Your task to perform on an android device: delete the emails in spam in the gmail app Image 0: 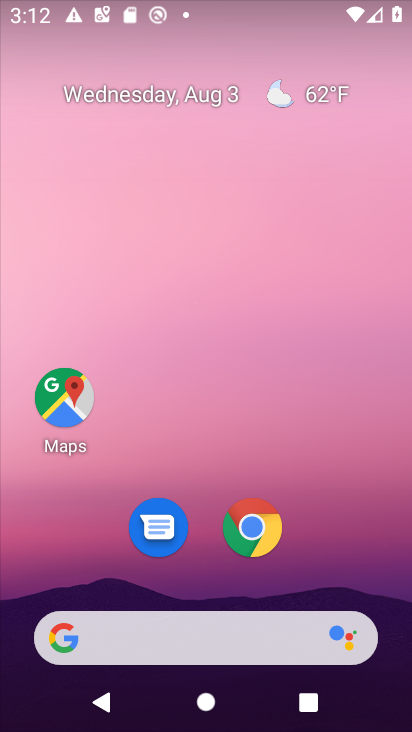
Step 0: drag from (355, 532) to (208, 126)
Your task to perform on an android device: delete the emails in spam in the gmail app Image 1: 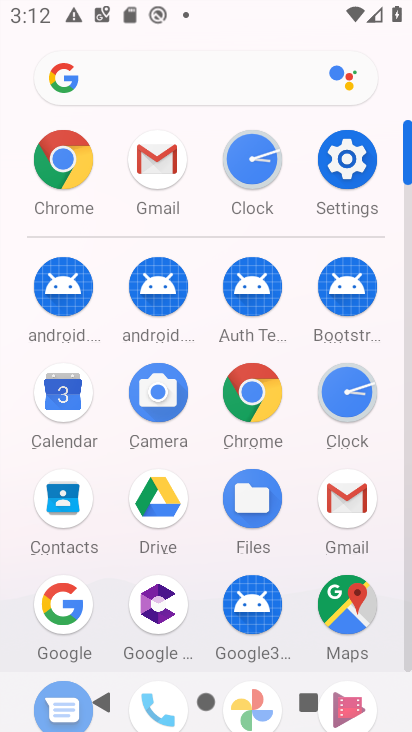
Step 1: click (352, 493)
Your task to perform on an android device: delete the emails in spam in the gmail app Image 2: 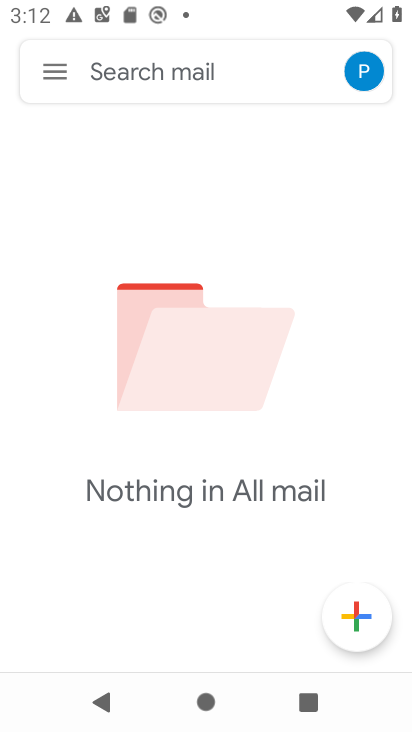
Step 2: click (61, 72)
Your task to perform on an android device: delete the emails in spam in the gmail app Image 3: 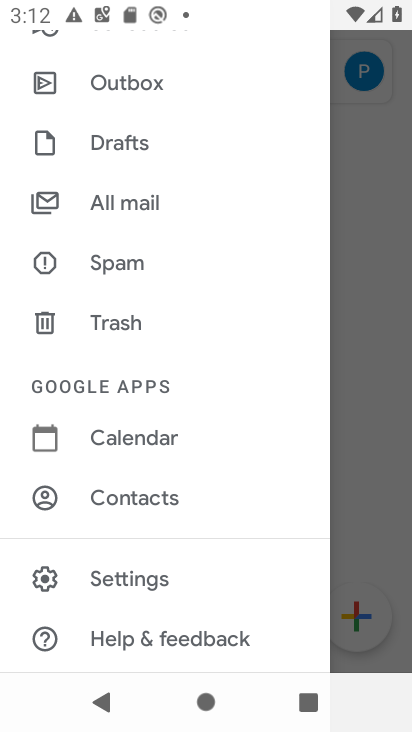
Step 3: click (123, 263)
Your task to perform on an android device: delete the emails in spam in the gmail app Image 4: 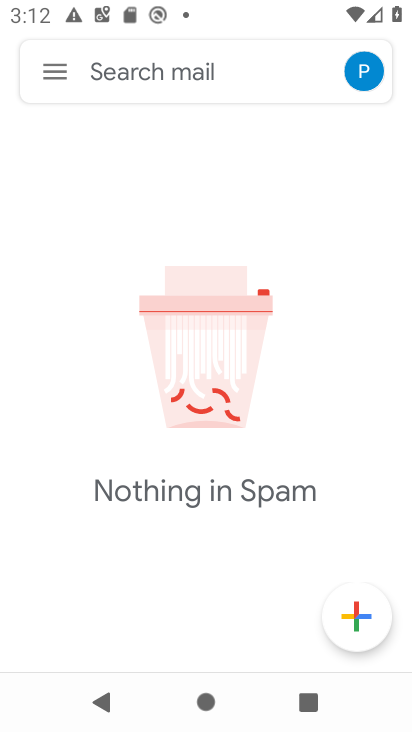
Step 4: task complete